Your task to perform on an android device: Turn off the flashlight Image 0: 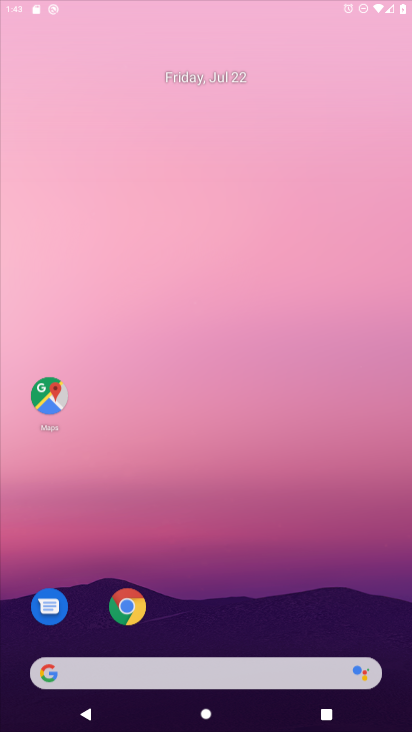
Step 0: drag from (245, 113) to (217, 20)
Your task to perform on an android device: Turn off the flashlight Image 1: 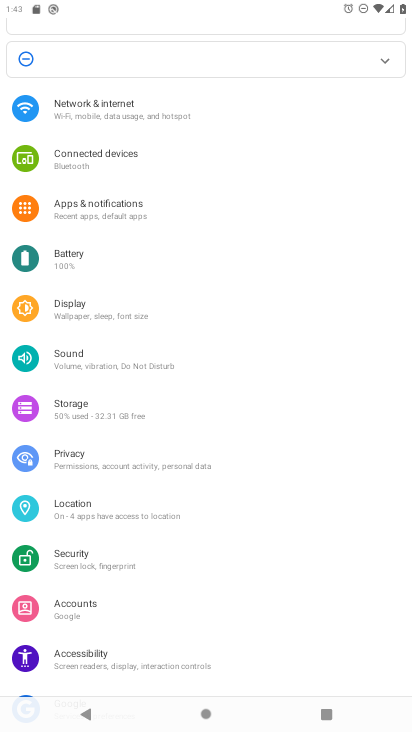
Step 1: press home button
Your task to perform on an android device: Turn off the flashlight Image 2: 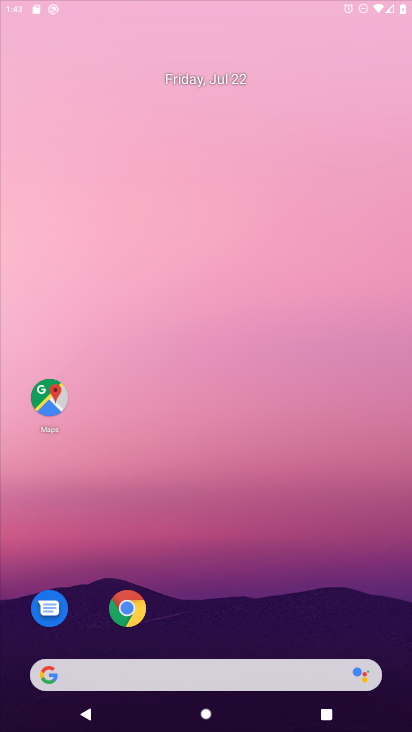
Step 2: drag from (396, 681) to (206, 33)
Your task to perform on an android device: Turn off the flashlight Image 3: 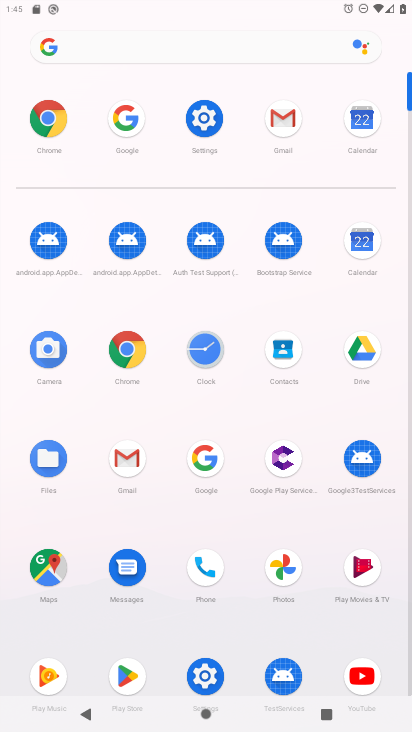
Step 3: click (210, 678)
Your task to perform on an android device: Turn off the flashlight Image 4: 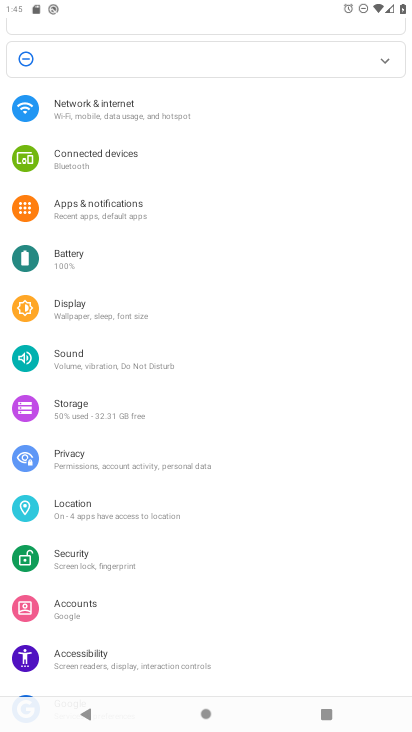
Step 4: task complete